Your task to perform on an android device: What's on my calendar tomorrow? Image 0: 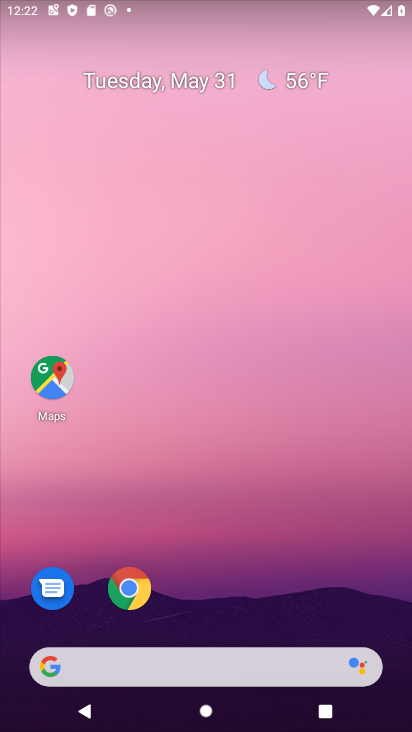
Step 0: drag from (197, 620) to (208, 299)
Your task to perform on an android device: What's on my calendar tomorrow? Image 1: 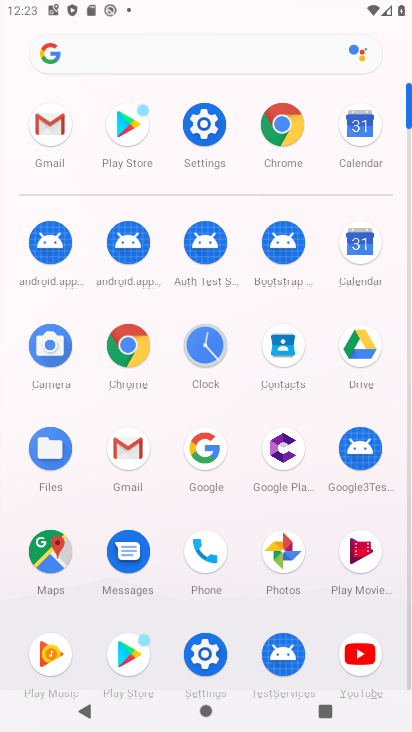
Step 1: click (367, 256)
Your task to perform on an android device: What's on my calendar tomorrow? Image 2: 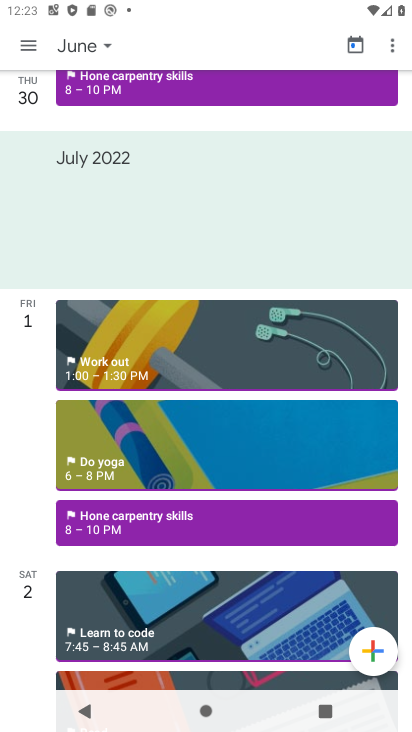
Step 2: task complete